Your task to perform on an android device: Go to Yahoo.com Image 0: 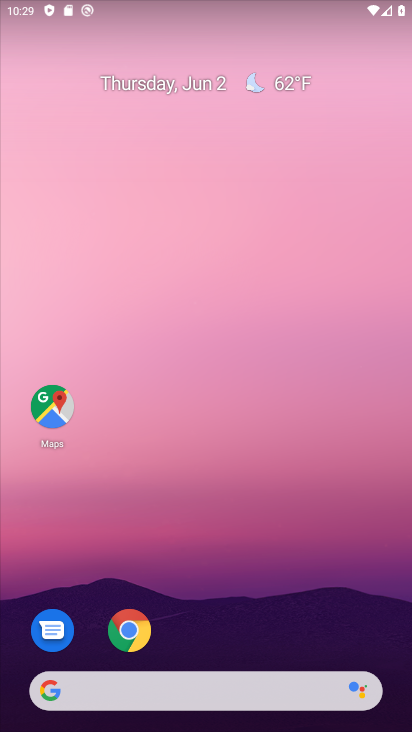
Step 0: press home button
Your task to perform on an android device: Go to Yahoo.com Image 1: 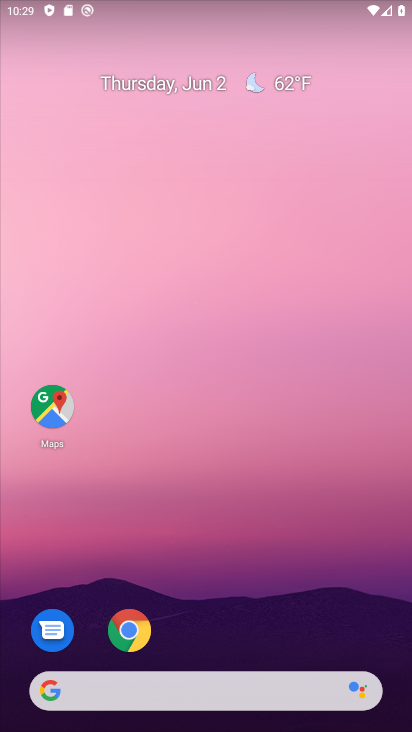
Step 1: click (134, 640)
Your task to perform on an android device: Go to Yahoo.com Image 2: 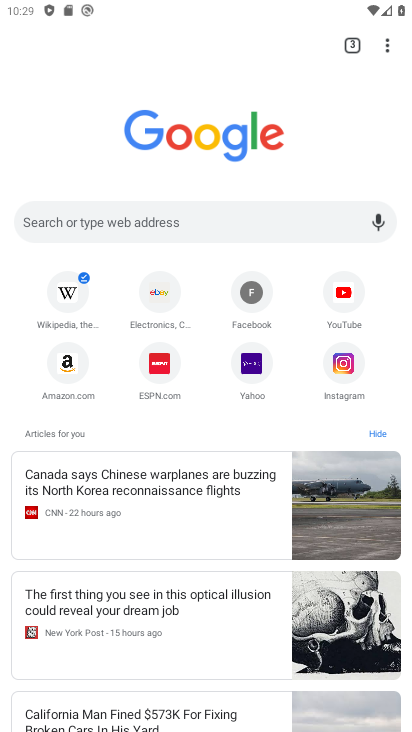
Step 2: click (249, 367)
Your task to perform on an android device: Go to Yahoo.com Image 3: 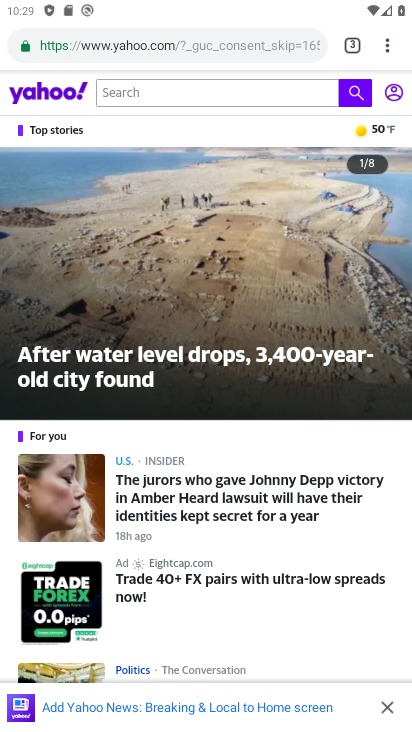
Step 3: task complete